Your task to perform on an android device: Open my contact list Image 0: 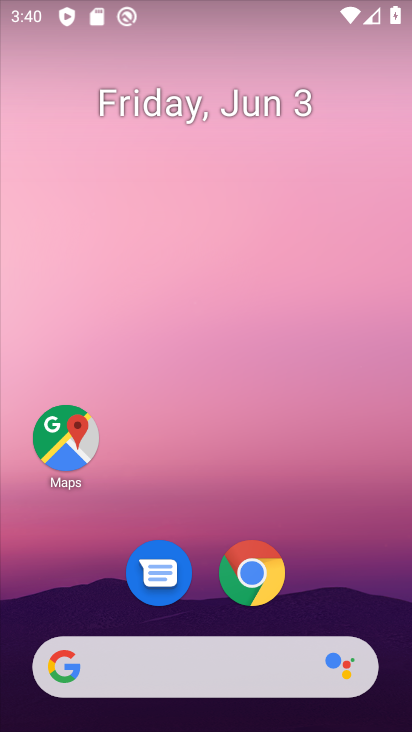
Step 0: click (223, 394)
Your task to perform on an android device: Open my contact list Image 1: 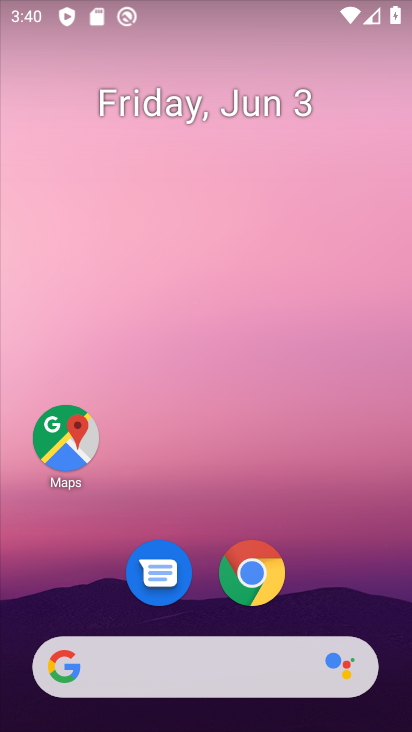
Step 1: drag from (386, 699) to (383, 350)
Your task to perform on an android device: Open my contact list Image 2: 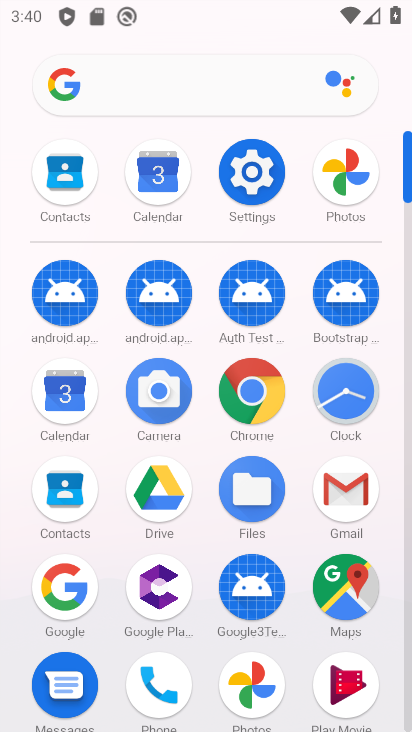
Step 2: drag from (213, 683) to (170, 347)
Your task to perform on an android device: Open my contact list Image 3: 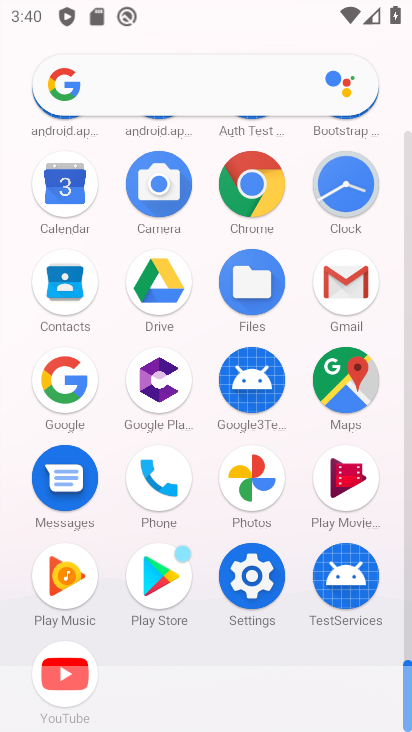
Step 3: click (62, 294)
Your task to perform on an android device: Open my contact list Image 4: 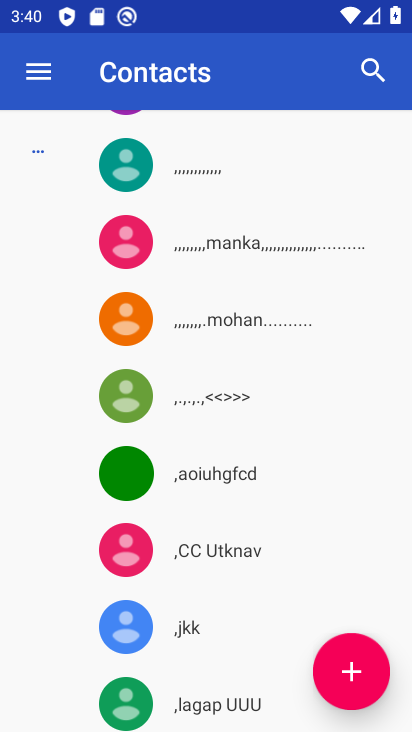
Step 4: task complete